Your task to perform on an android device: change the clock style Image 0: 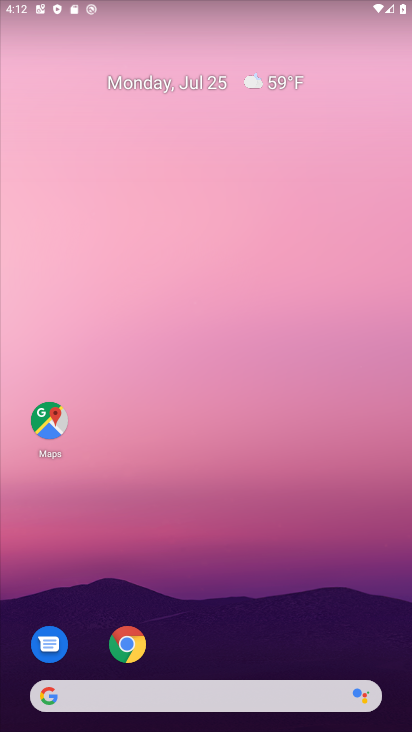
Step 0: drag from (173, 680) to (105, 127)
Your task to perform on an android device: change the clock style Image 1: 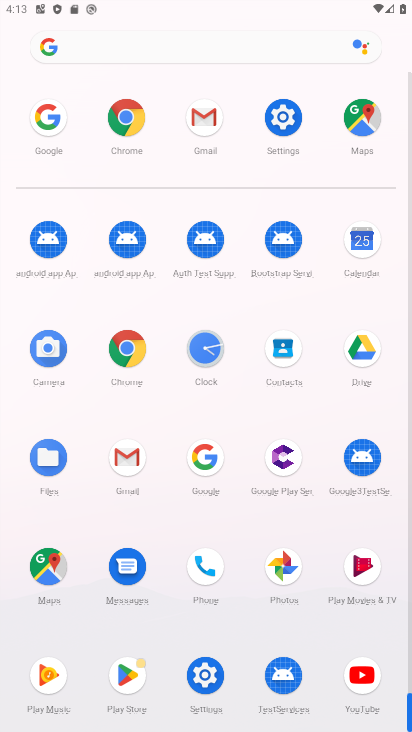
Step 1: click (213, 355)
Your task to perform on an android device: change the clock style Image 2: 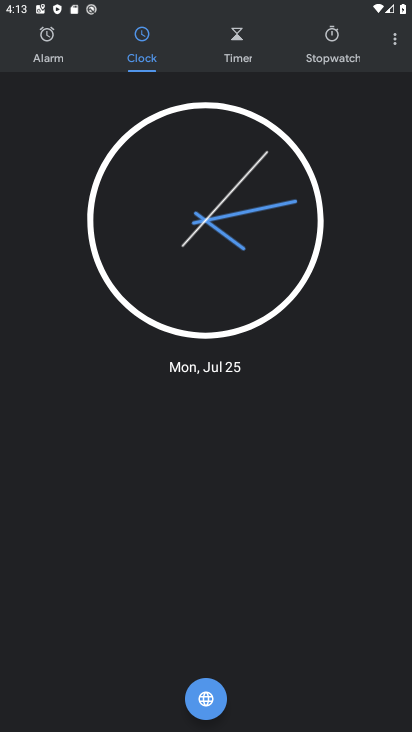
Step 2: click (390, 37)
Your task to perform on an android device: change the clock style Image 3: 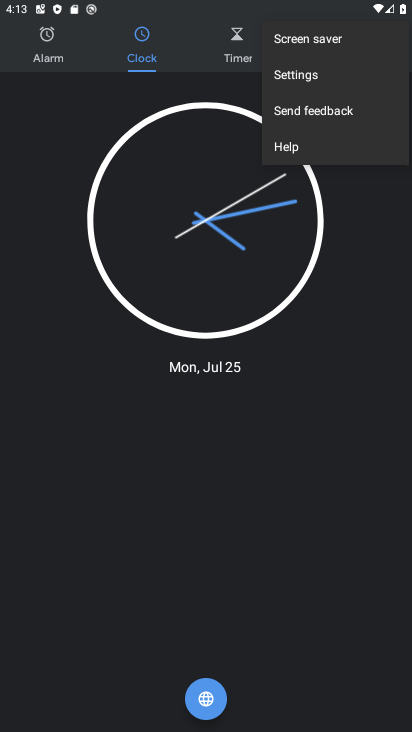
Step 3: click (311, 69)
Your task to perform on an android device: change the clock style Image 4: 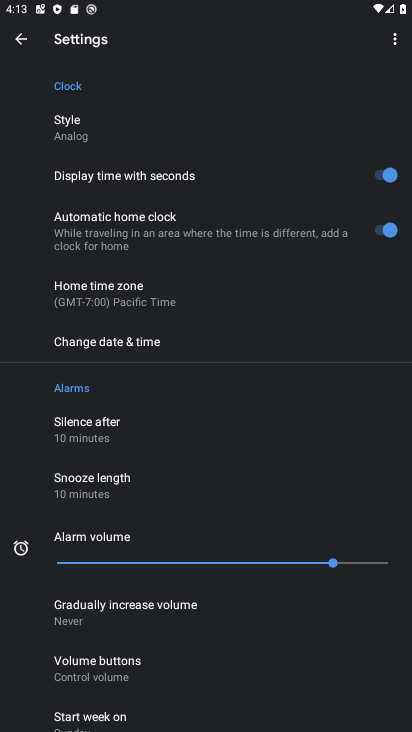
Step 4: click (62, 126)
Your task to perform on an android device: change the clock style Image 5: 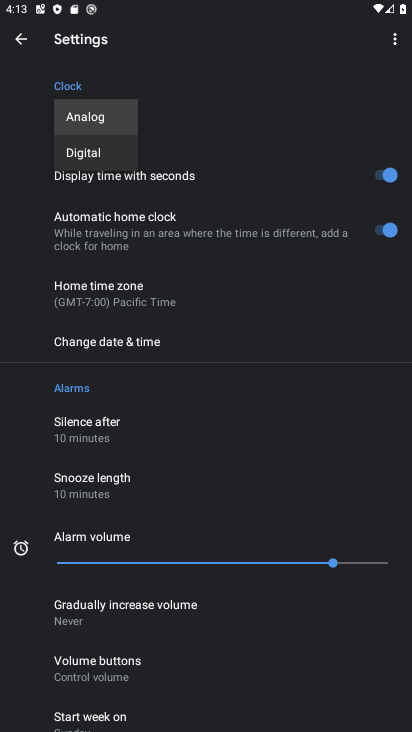
Step 5: click (102, 146)
Your task to perform on an android device: change the clock style Image 6: 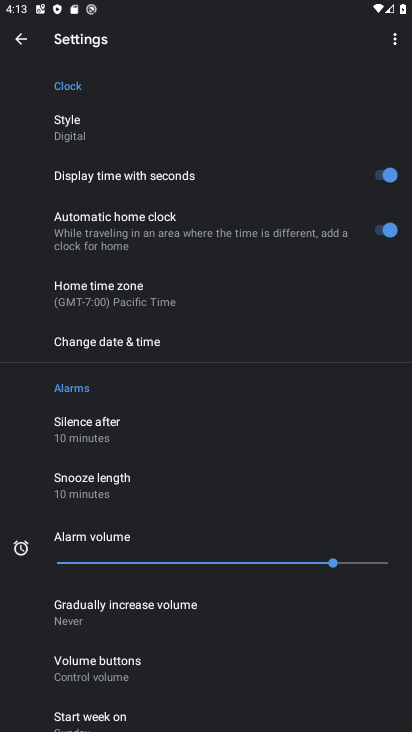
Step 6: task complete